Your task to perform on an android device: Show me the alarms in the clock app Image 0: 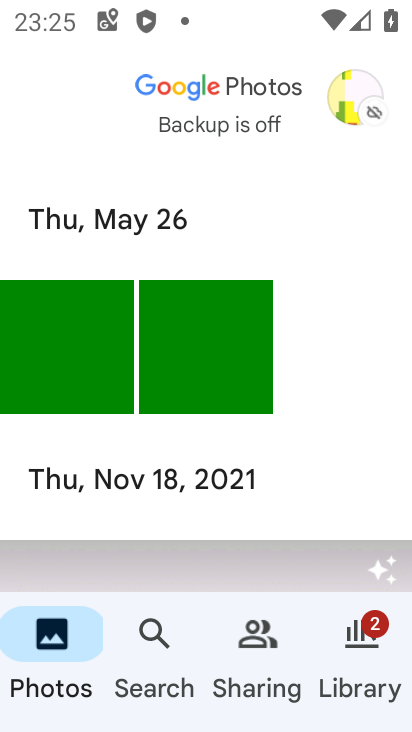
Step 0: press home button
Your task to perform on an android device: Show me the alarms in the clock app Image 1: 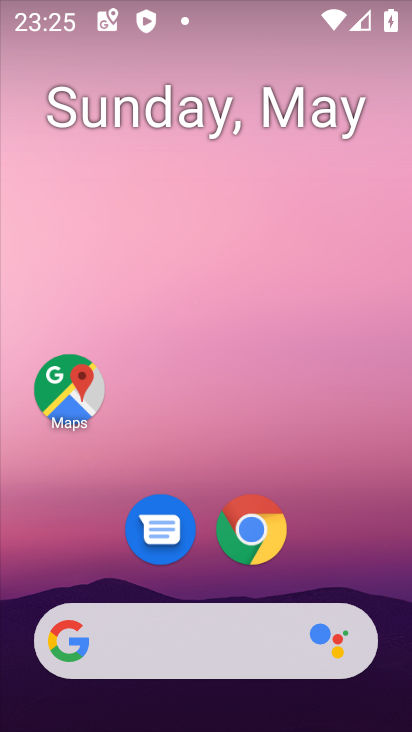
Step 1: drag from (324, 573) to (288, 124)
Your task to perform on an android device: Show me the alarms in the clock app Image 2: 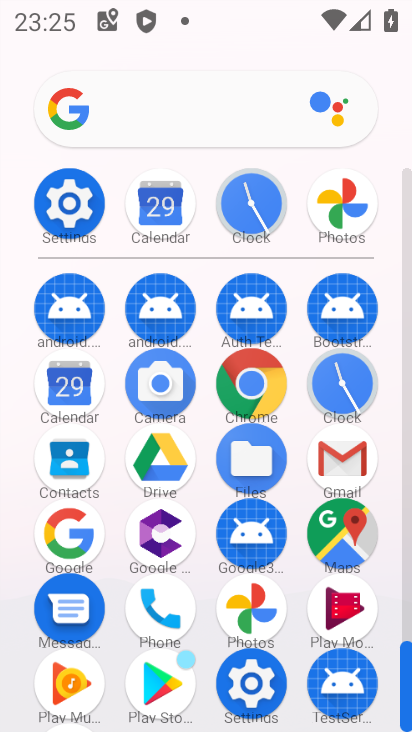
Step 2: click (274, 220)
Your task to perform on an android device: Show me the alarms in the clock app Image 3: 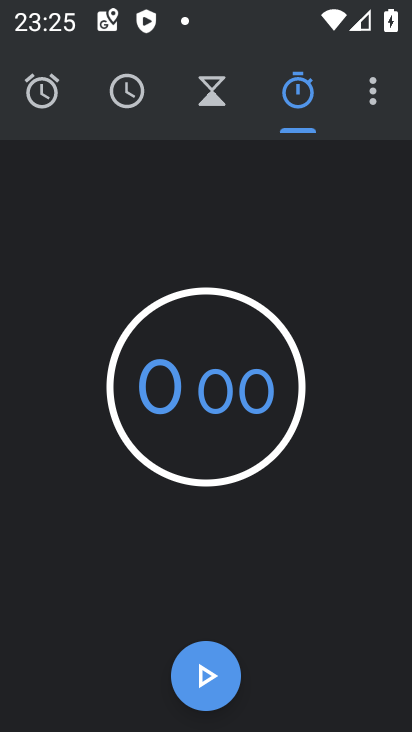
Step 3: click (49, 103)
Your task to perform on an android device: Show me the alarms in the clock app Image 4: 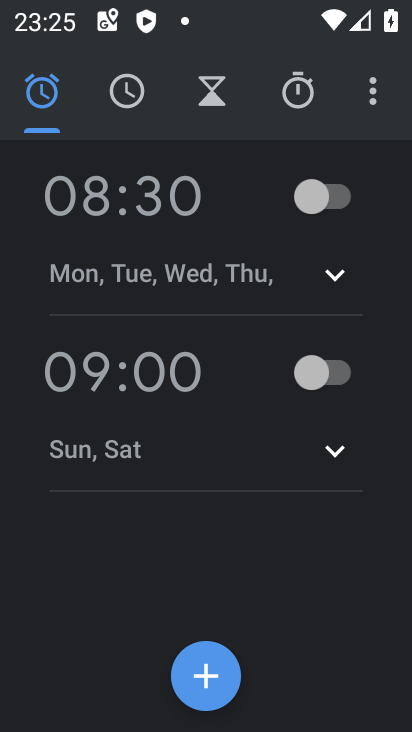
Step 4: task complete